Your task to perform on an android device: set the stopwatch Image 0: 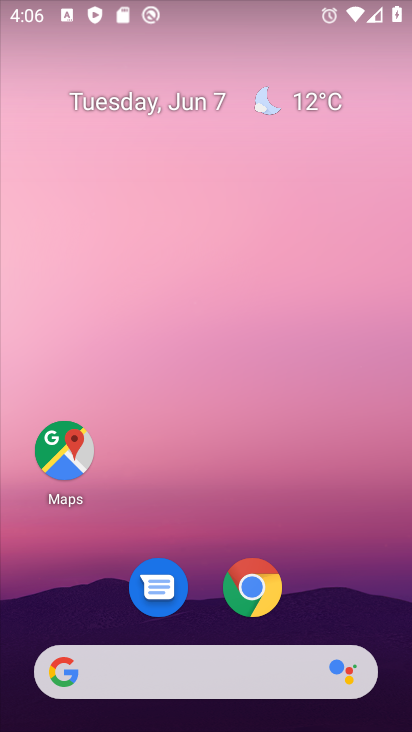
Step 0: drag from (285, 377) to (285, 323)
Your task to perform on an android device: set the stopwatch Image 1: 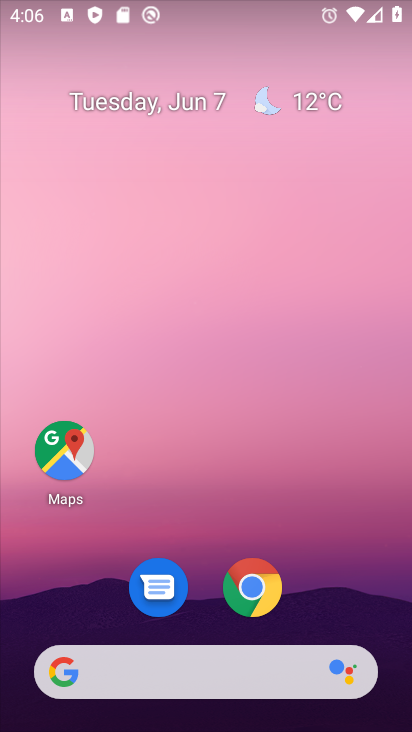
Step 1: drag from (241, 610) to (321, 0)
Your task to perform on an android device: set the stopwatch Image 2: 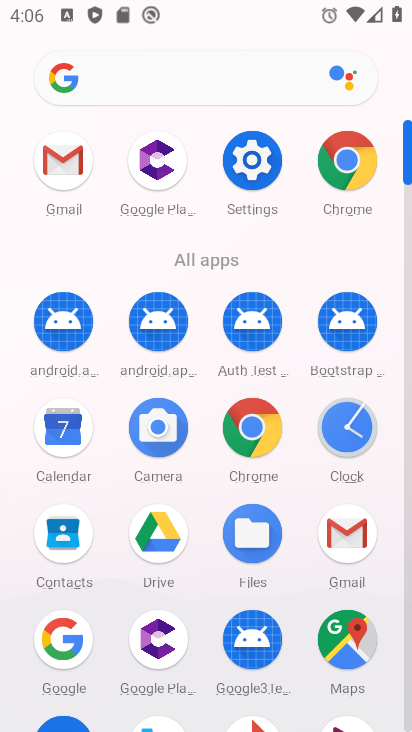
Step 2: click (355, 424)
Your task to perform on an android device: set the stopwatch Image 3: 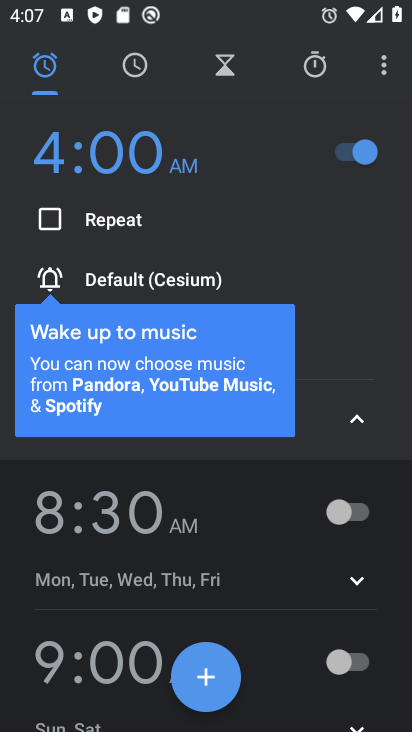
Step 3: click (311, 58)
Your task to perform on an android device: set the stopwatch Image 4: 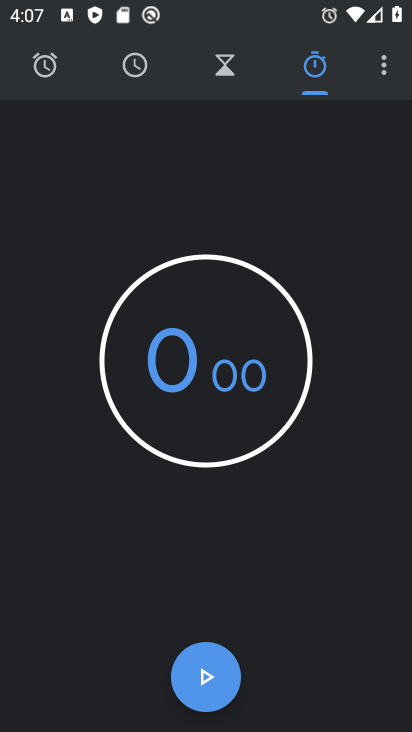
Step 4: click (235, 671)
Your task to perform on an android device: set the stopwatch Image 5: 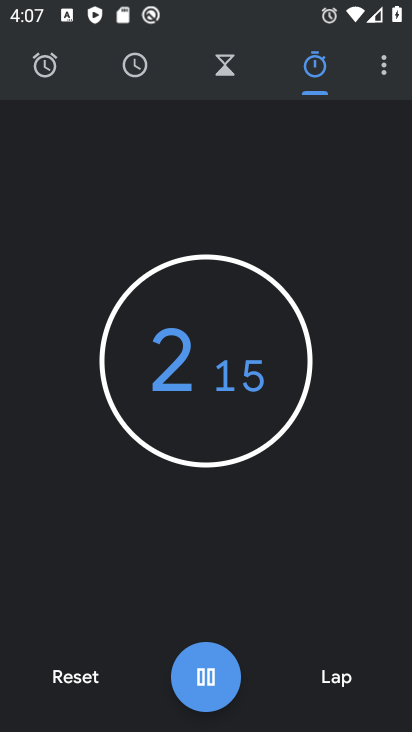
Step 5: task complete